Your task to perform on an android device: Clear all items from cart on ebay.com. Add "acer nitro" to the cart on ebay.com Image 0: 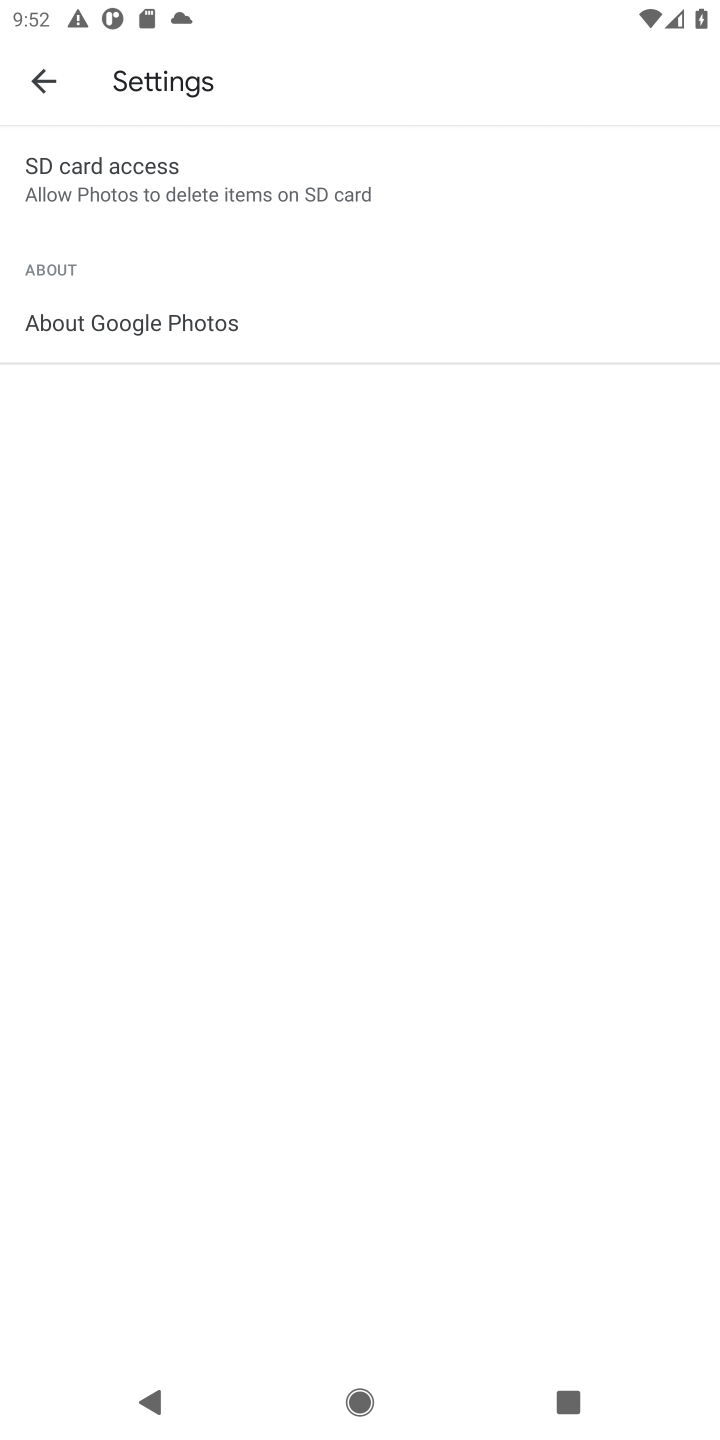
Step 0: press home button
Your task to perform on an android device: Clear all items from cart on ebay.com. Add "acer nitro" to the cart on ebay.com Image 1: 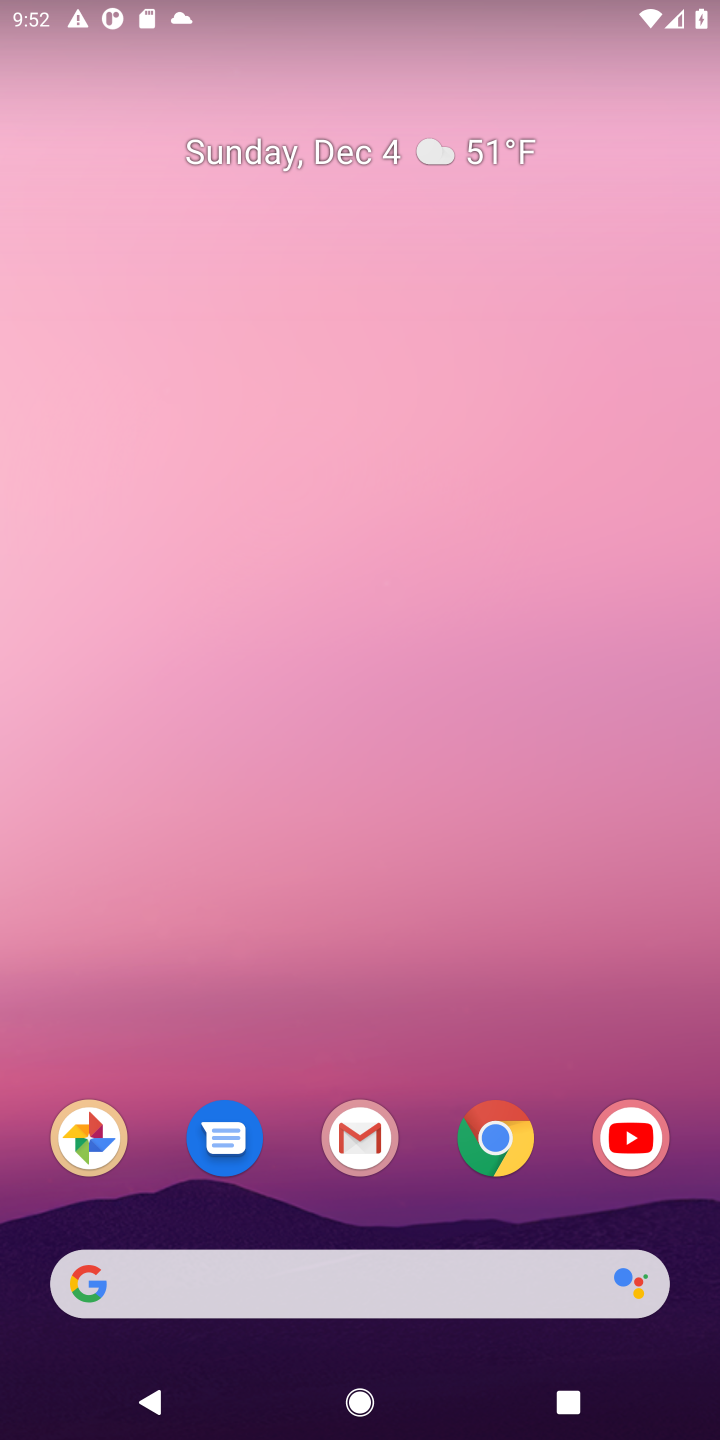
Step 1: click (488, 1129)
Your task to perform on an android device: Clear all items from cart on ebay.com. Add "acer nitro" to the cart on ebay.com Image 2: 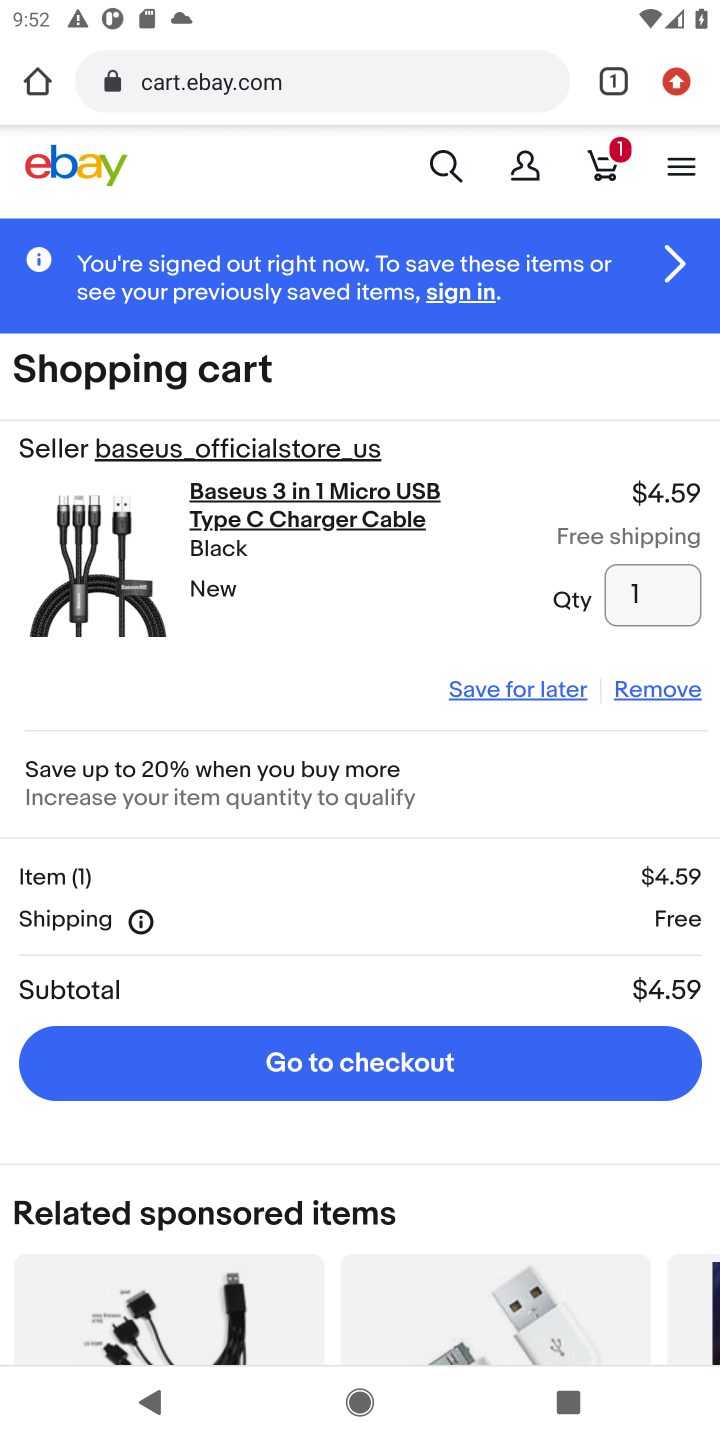
Step 2: click (649, 691)
Your task to perform on an android device: Clear all items from cart on ebay.com. Add "acer nitro" to the cart on ebay.com Image 3: 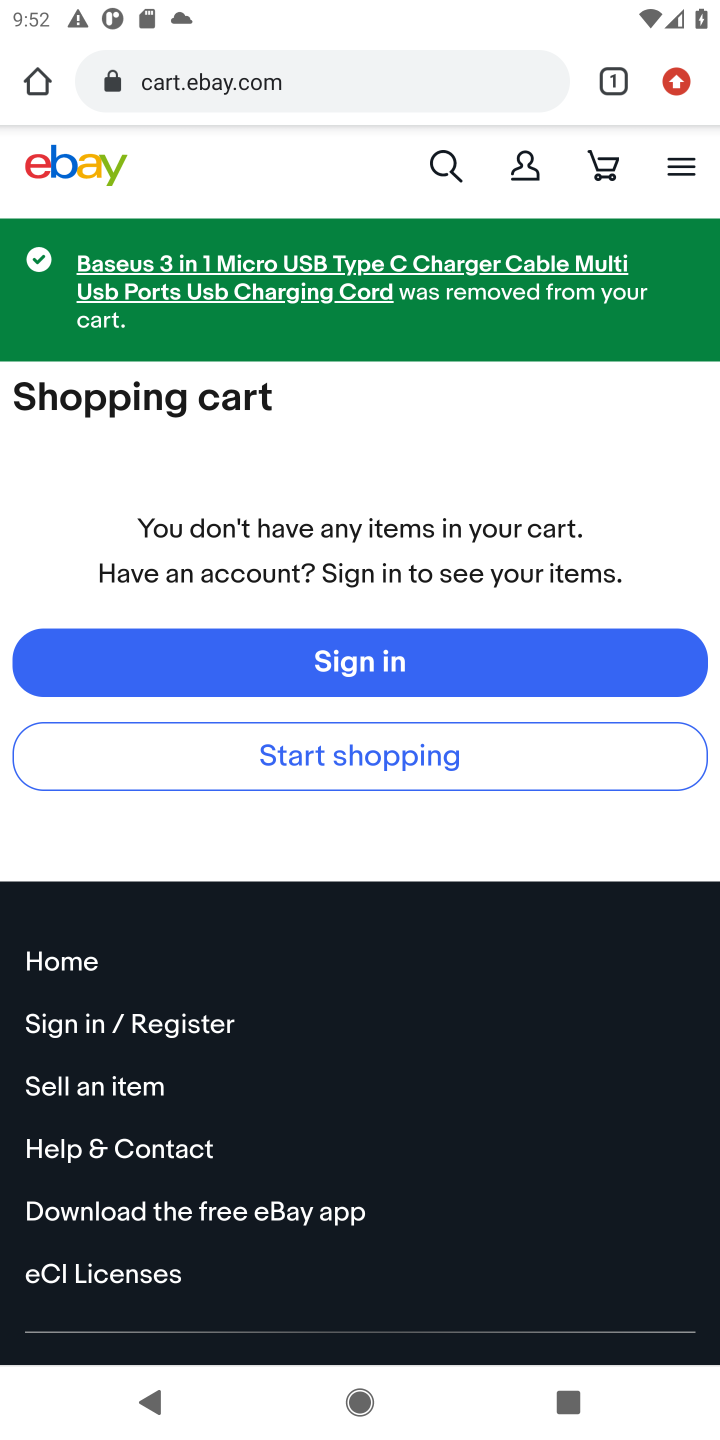
Step 3: click (436, 160)
Your task to perform on an android device: Clear all items from cart on ebay.com. Add "acer nitro" to the cart on ebay.com Image 4: 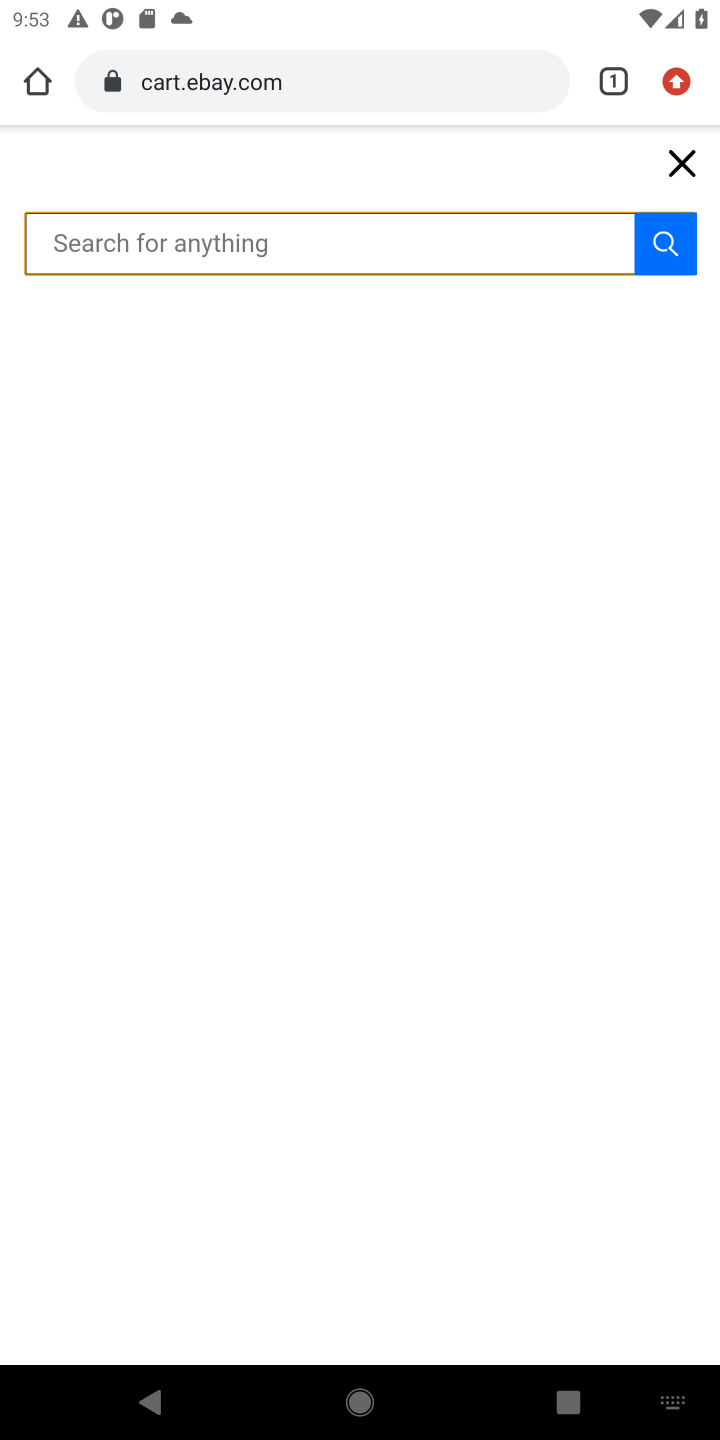
Step 4: type "acer nitro"
Your task to perform on an android device: Clear all items from cart on ebay.com. Add "acer nitro" to the cart on ebay.com Image 5: 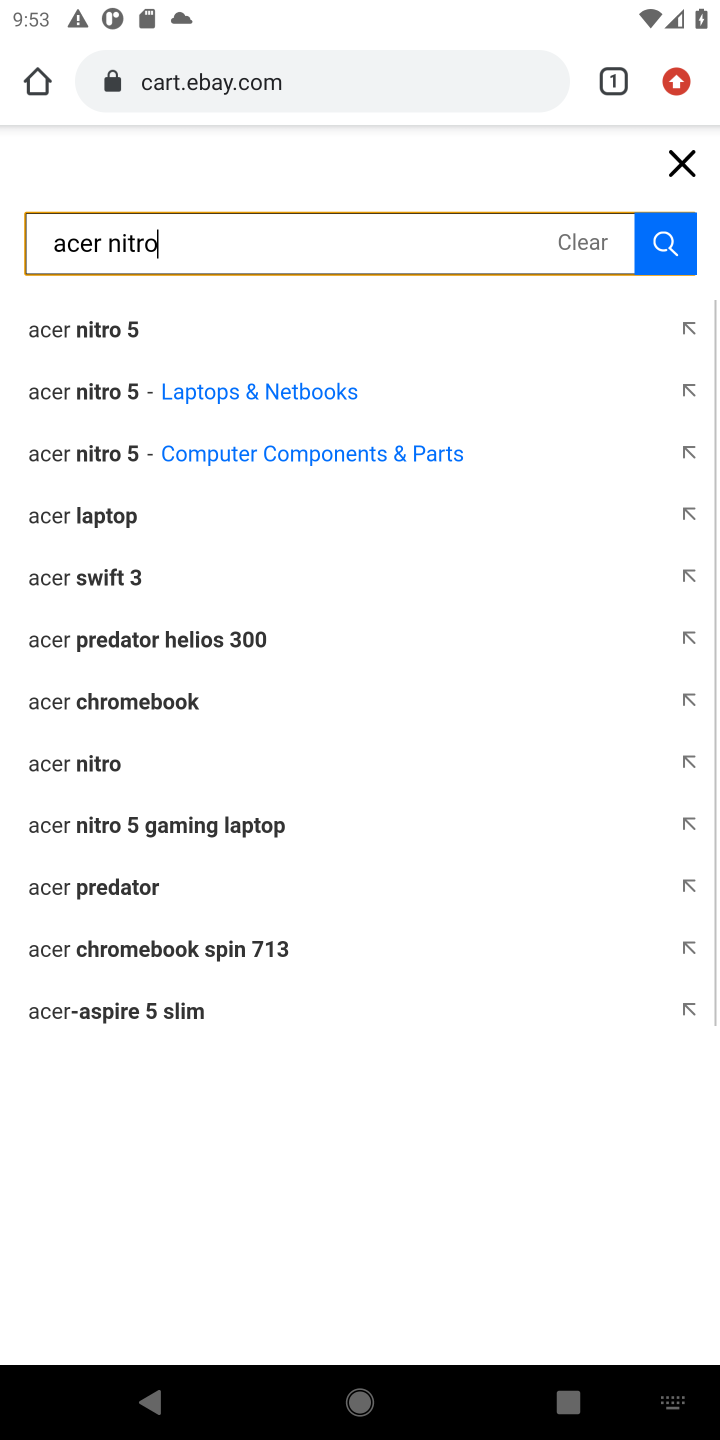
Step 5: press enter
Your task to perform on an android device: Clear all items from cart on ebay.com. Add "acer nitro" to the cart on ebay.com Image 6: 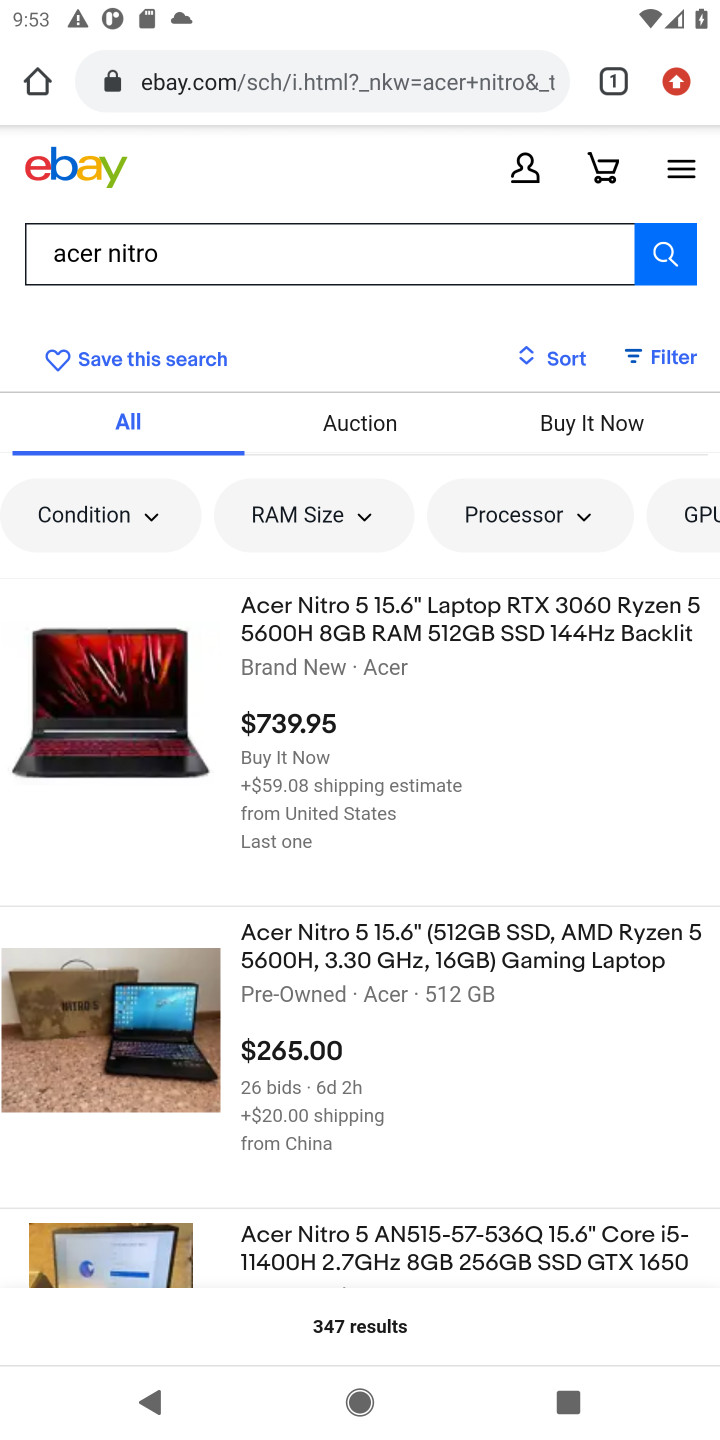
Step 6: click (91, 654)
Your task to perform on an android device: Clear all items from cart on ebay.com. Add "acer nitro" to the cart on ebay.com Image 7: 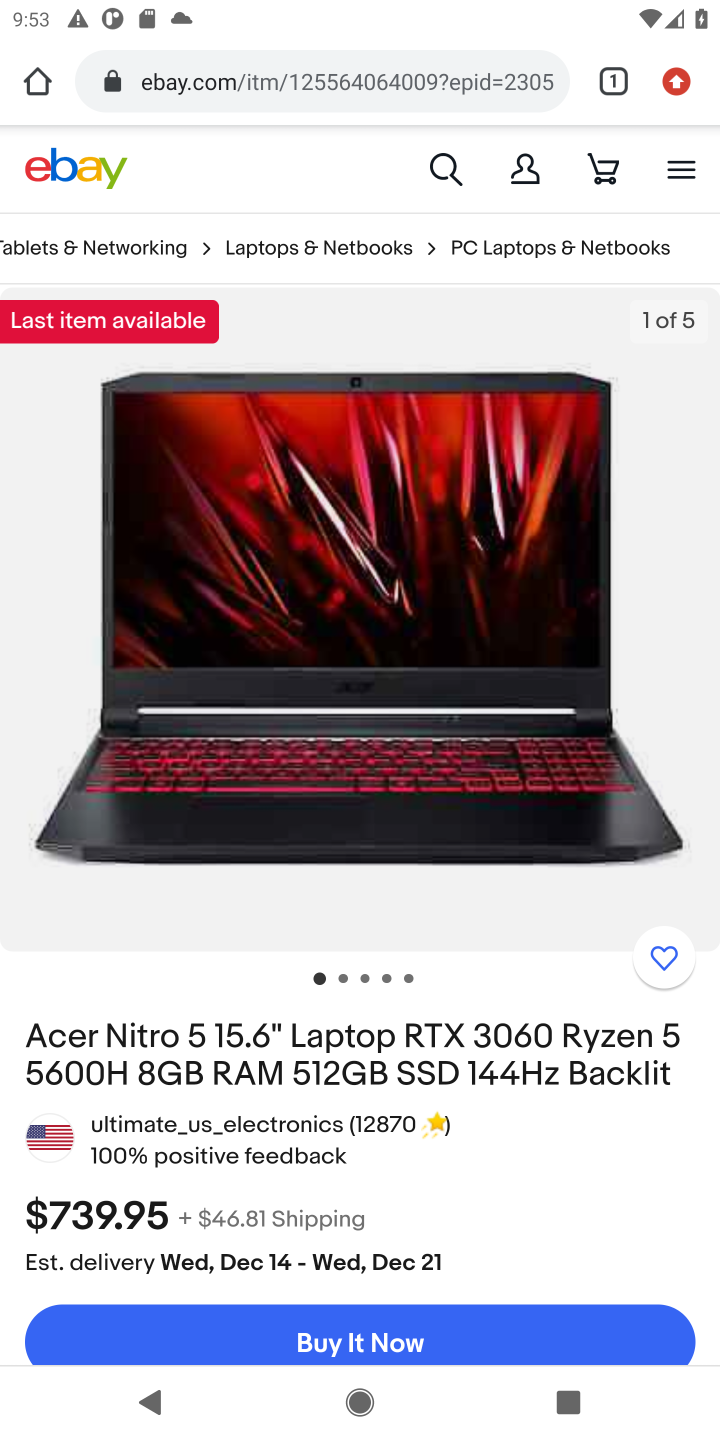
Step 7: drag from (660, 601) to (696, 527)
Your task to perform on an android device: Clear all items from cart on ebay.com. Add "acer nitro" to the cart on ebay.com Image 8: 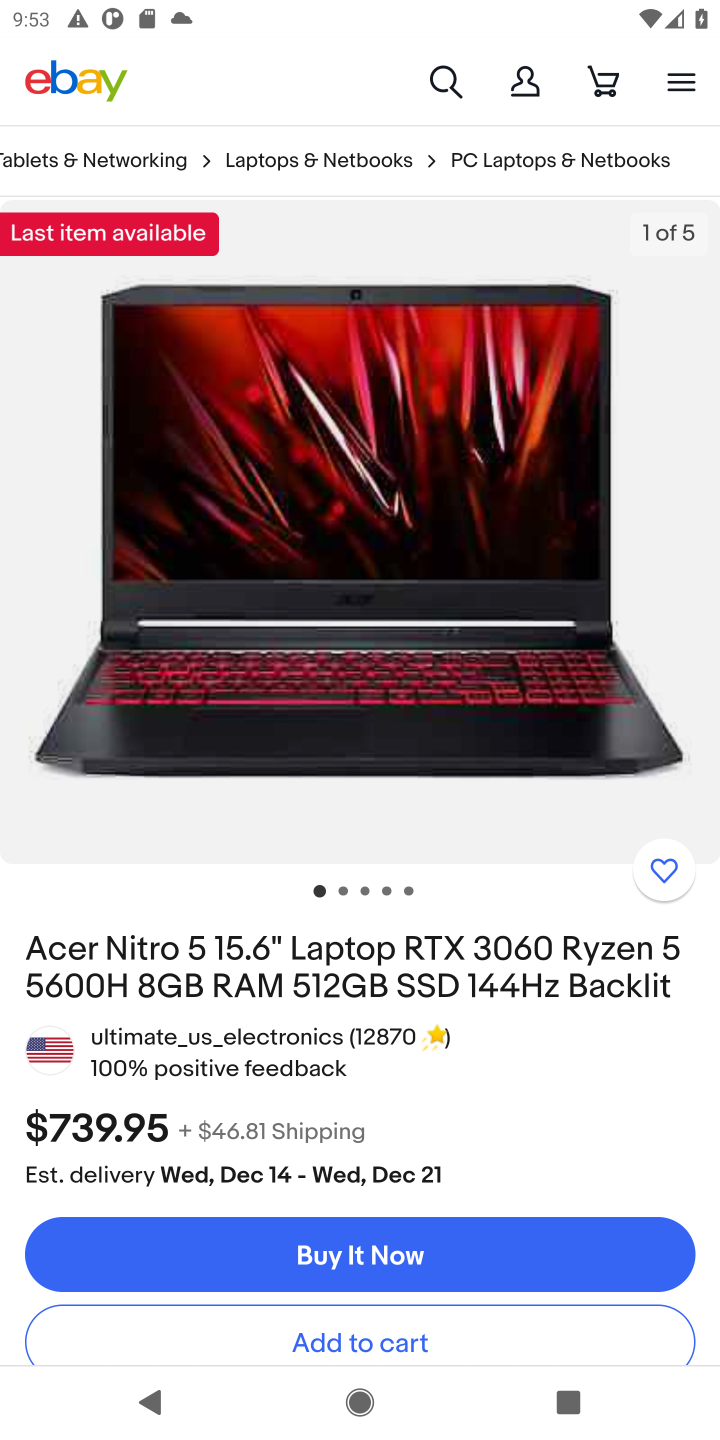
Step 8: click (367, 1336)
Your task to perform on an android device: Clear all items from cart on ebay.com. Add "acer nitro" to the cart on ebay.com Image 9: 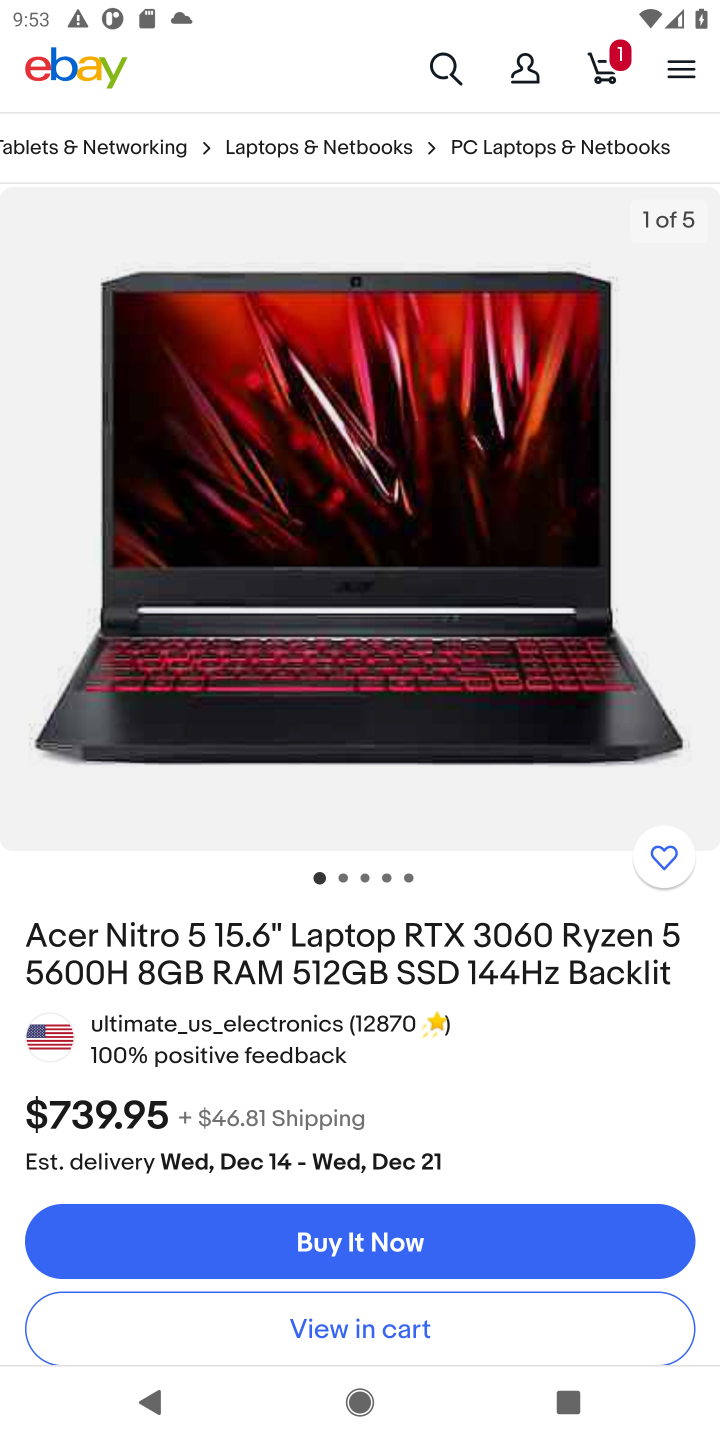
Step 9: click (413, 1315)
Your task to perform on an android device: Clear all items from cart on ebay.com. Add "acer nitro" to the cart on ebay.com Image 10: 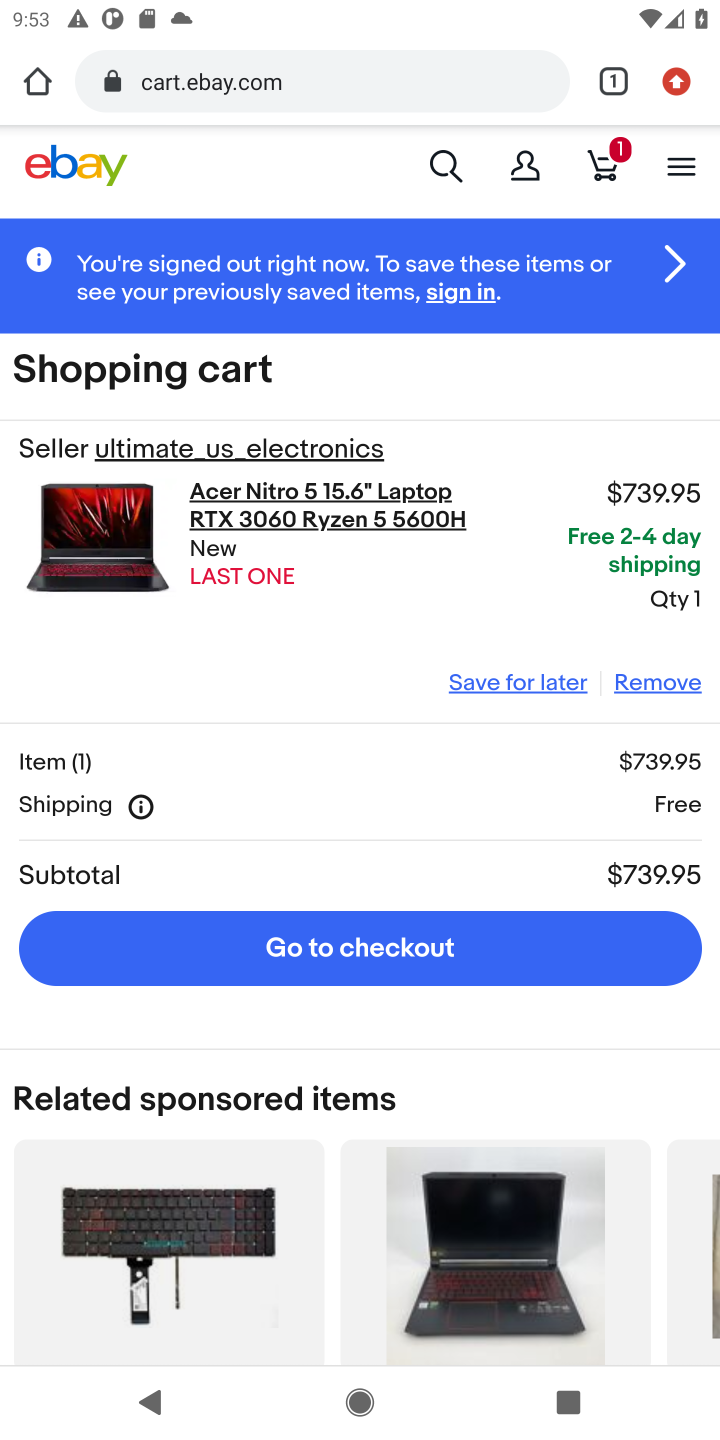
Step 10: task complete